Your task to perform on an android device: Open Google Maps and go to "Timeline" Image 0: 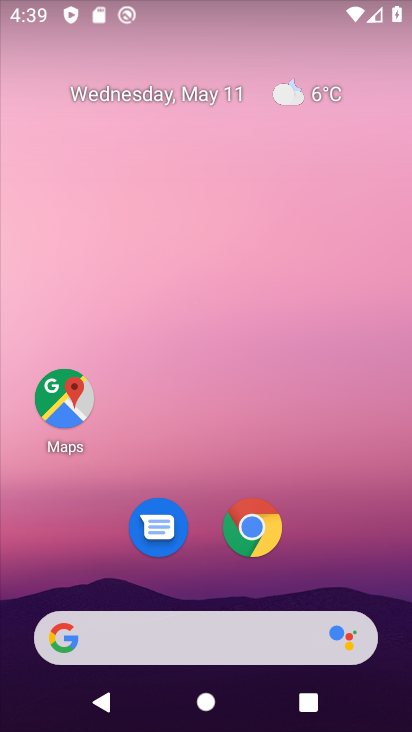
Step 0: drag from (301, 583) to (169, 28)
Your task to perform on an android device: Open Google Maps and go to "Timeline" Image 1: 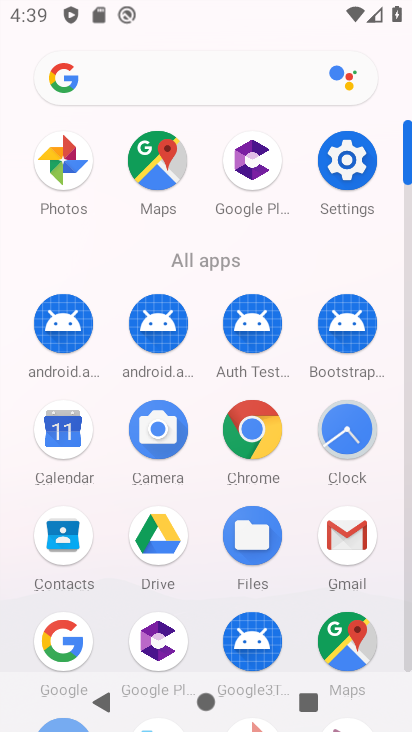
Step 1: click (168, 152)
Your task to perform on an android device: Open Google Maps and go to "Timeline" Image 2: 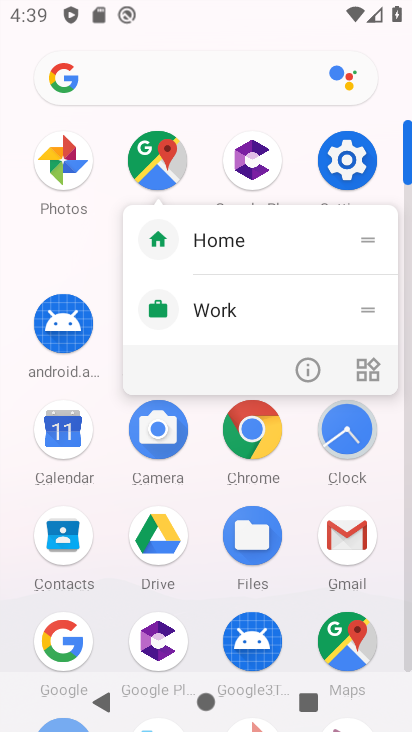
Step 2: click (156, 162)
Your task to perform on an android device: Open Google Maps and go to "Timeline" Image 3: 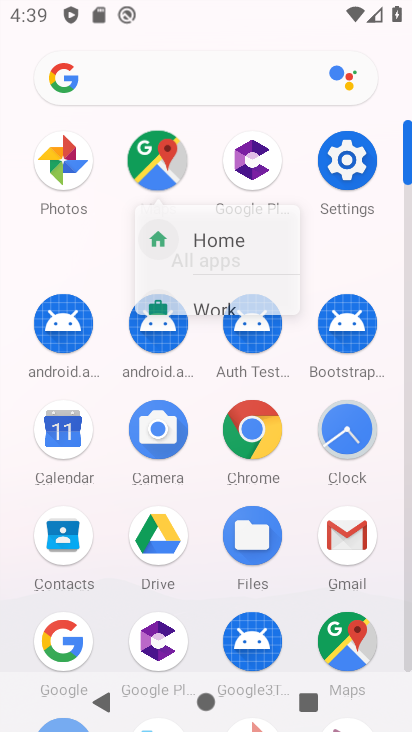
Step 3: click (159, 148)
Your task to perform on an android device: Open Google Maps and go to "Timeline" Image 4: 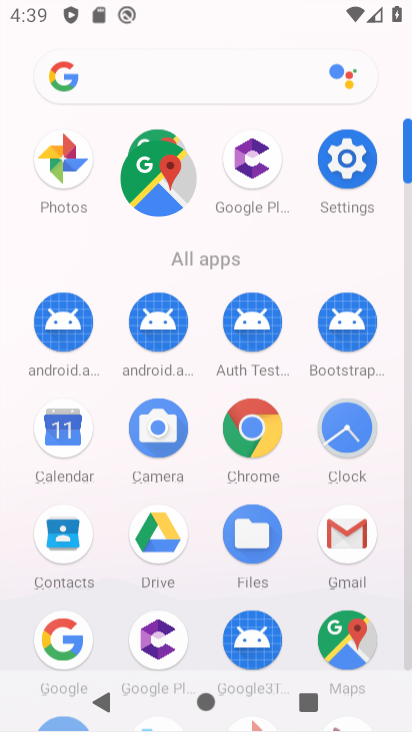
Step 4: click (162, 144)
Your task to perform on an android device: Open Google Maps and go to "Timeline" Image 5: 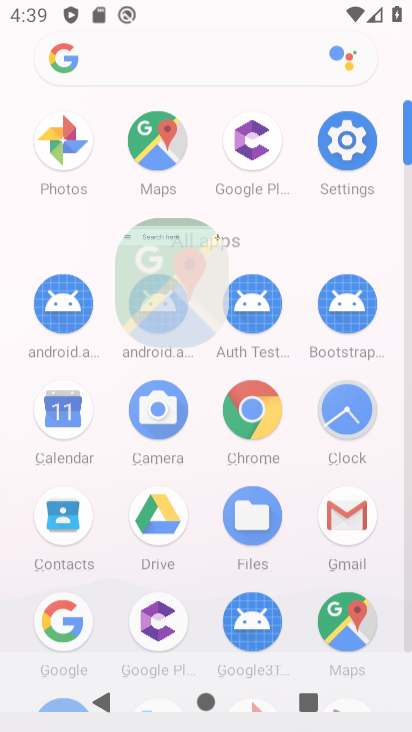
Step 5: click (164, 143)
Your task to perform on an android device: Open Google Maps and go to "Timeline" Image 6: 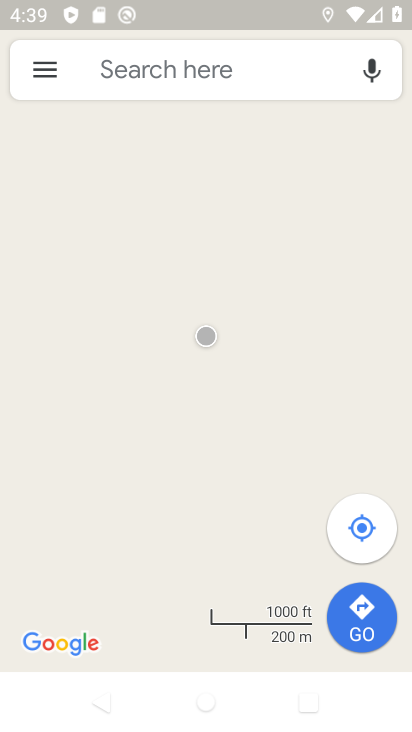
Step 6: click (54, 70)
Your task to perform on an android device: Open Google Maps and go to "Timeline" Image 7: 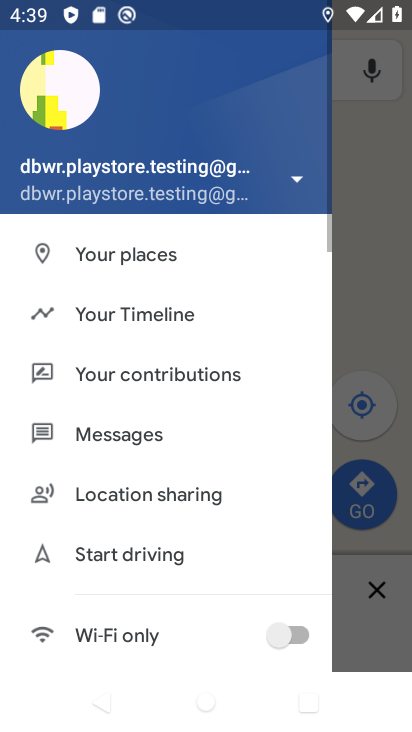
Step 7: click (41, 74)
Your task to perform on an android device: Open Google Maps and go to "Timeline" Image 8: 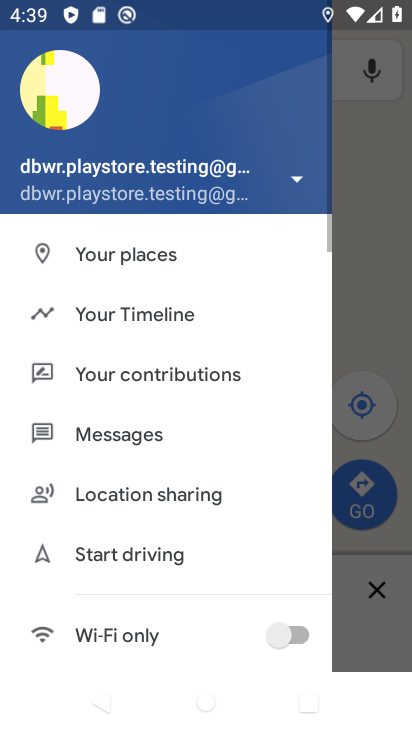
Step 8: click (165, 310)
Your task to perform on an android device: Open Google Maps and go to "Timeline" Image 9: 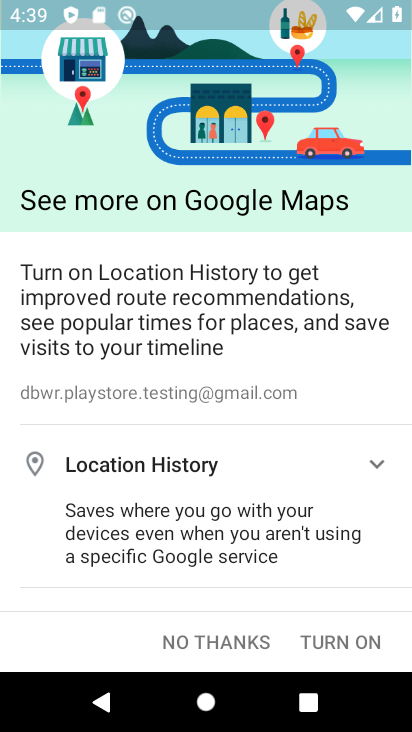
Step 9: task complete